Your task to perform on an android device: Open the Google play store app Image 0: 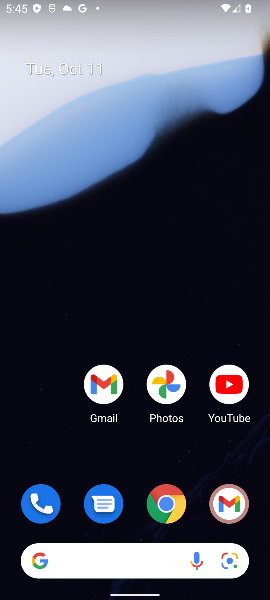
Step 0: drag from (131, 522) to (208, 85)
Your task to perform on an android device: Open the Google play store app Image 1: 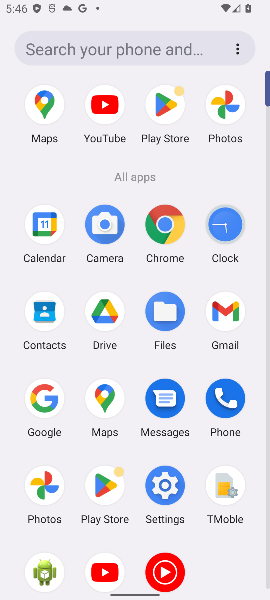
Step 1: click (170, 96)
Your task to perform on an android device: Open the Google play store app Image 2: 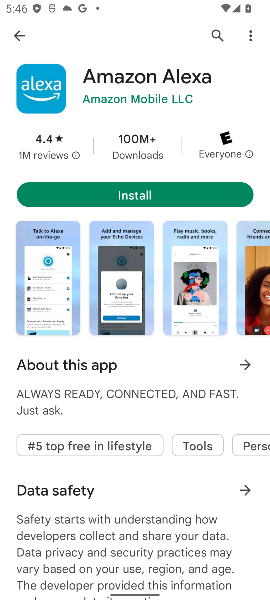
Step 2: task complete